Your task to perform on an android device: open chrome and create a bookmark for the current page Image 0: 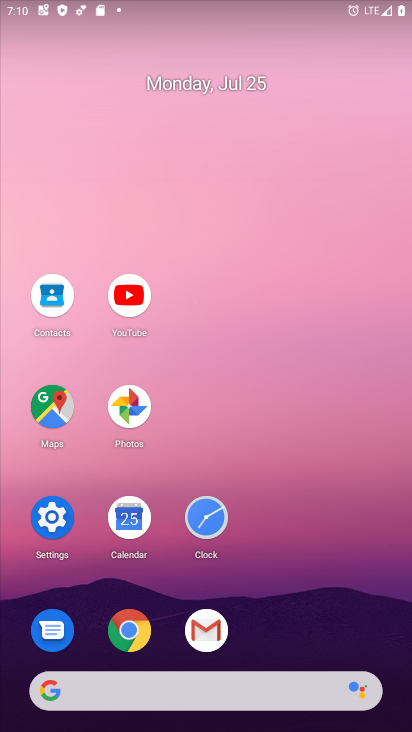
Step 0: click (128, 633)
Your task to perform on an android device: open chrome and create a bookmark for the current page Image 1: 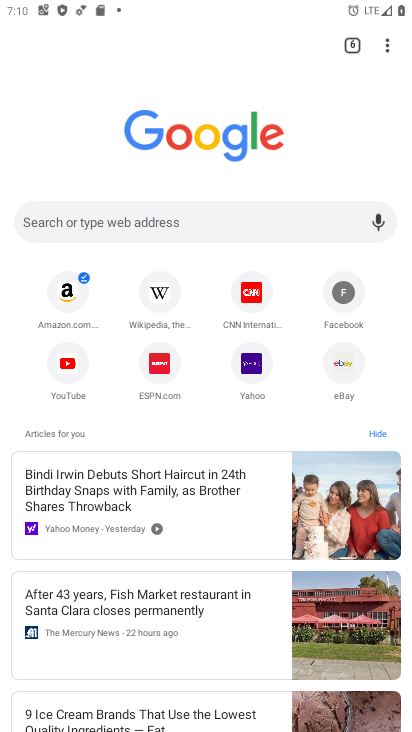
Step 1: click (382, 48)
Your task to perform on an android device: open chrome and create a bookmark for the current page Image 2: 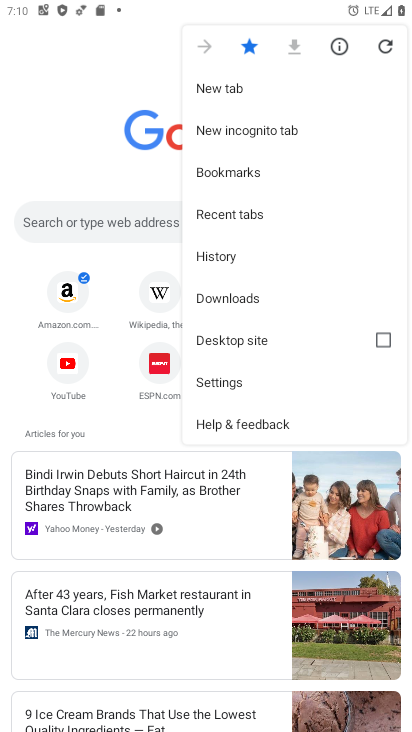
Step 2: task complete